Your task to perform on an android device: Go to sound settings Image 0: 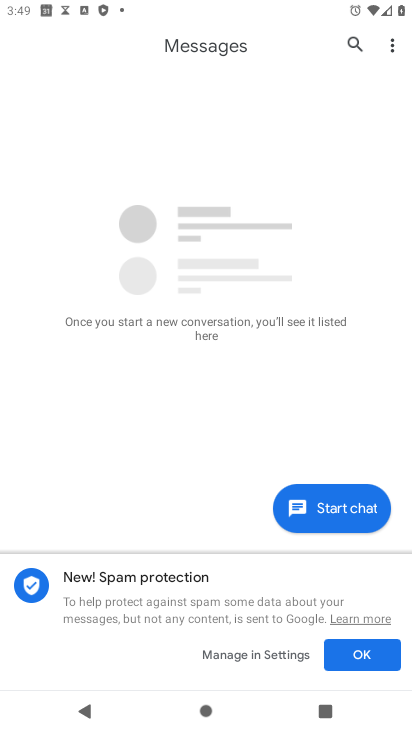
Step 0: press home button
Your task to perform on an android device: Go to sound settings Image 1: 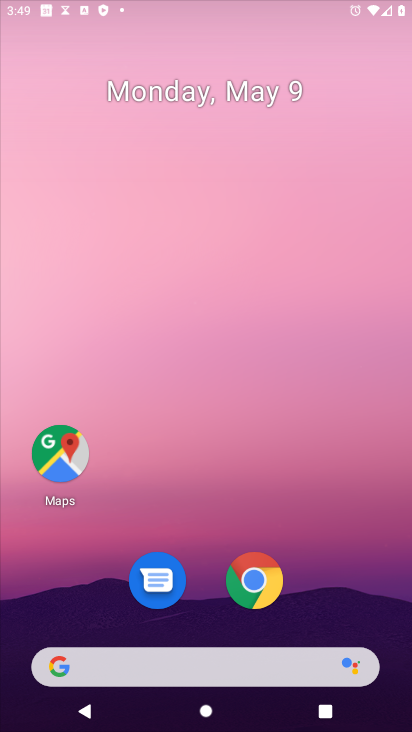
Step 1: drag from (305, 545) to (224, 65)
Your task to perform on an android device: Go to sound settings Image 2: 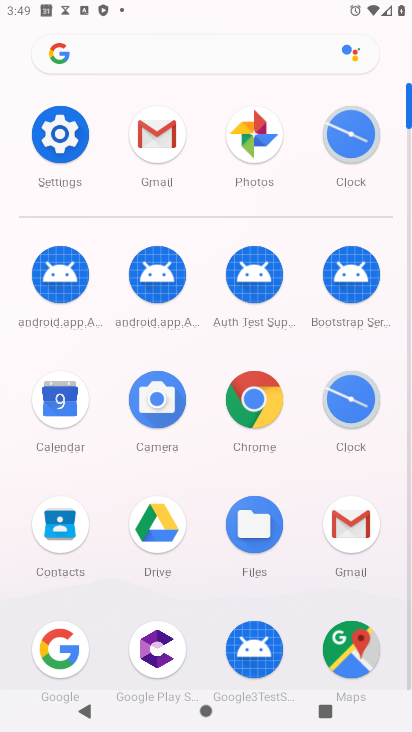
Step 2: click (42, 135)
Your task to perform on an android device: Go to sound settings Image 3: 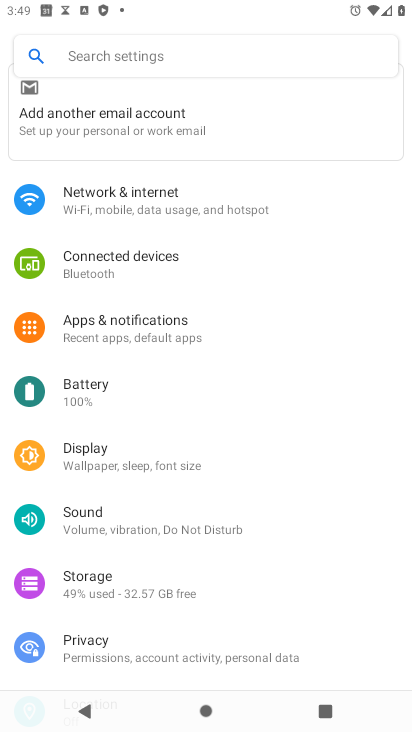
Step 3: click (161, 523)
Your task to perform on an android device: Go to sound settings Image 4: 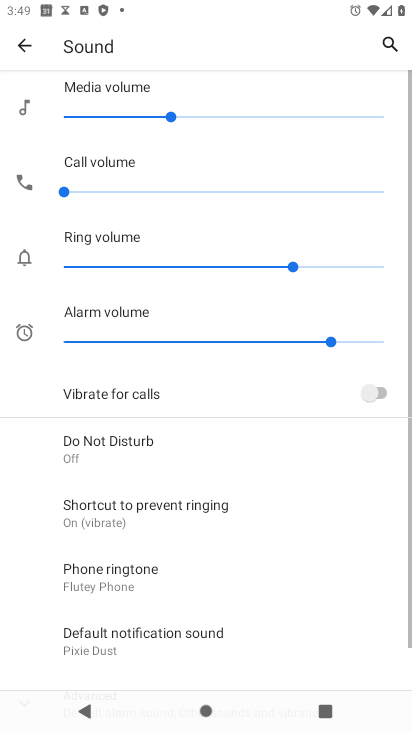
Step 4: task complete